Your task to perform on an android device: turn on data saver in the chrome app Image 0: 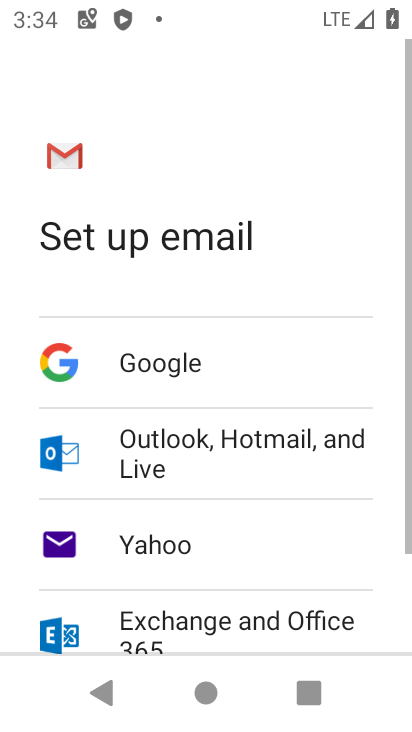
Step 0: press home button
Your task to perform on an android device: turn on data saver in the chrome app Image 1: 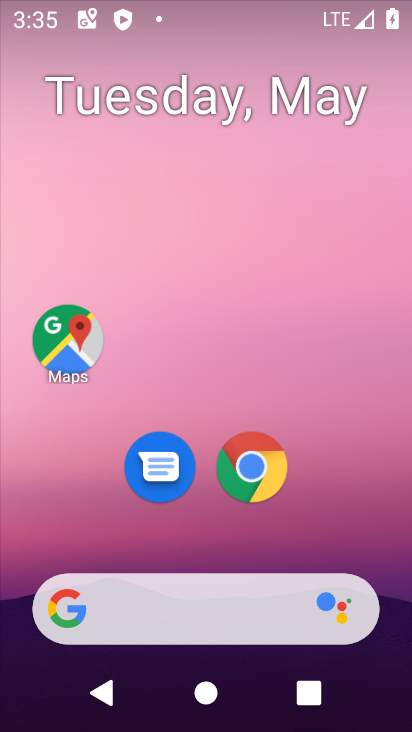
Step 1: click (253, 477)
Your task to perform on an android device: turn on data saver in the chrome app Image 2: 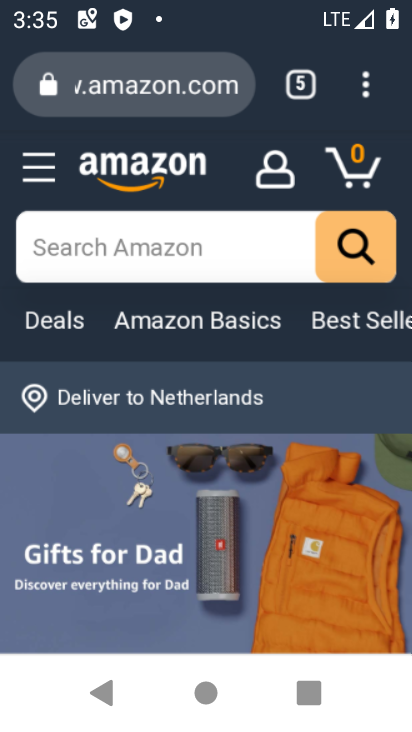
Step 2: drag from (364, 74) to (227, 510)
Your task to perform on an android device: turn on data saver in the chrome app Image 3: 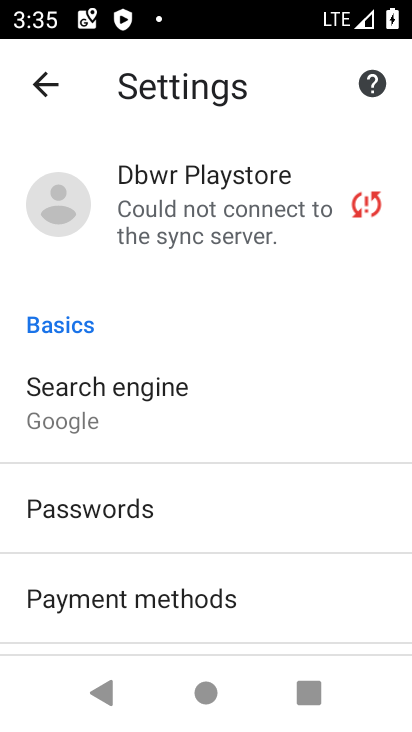
Step 3: drag from (345, 619) to (309, 55)
Your task to perform on an android device: turn on data saver in the chrome app Image 4: 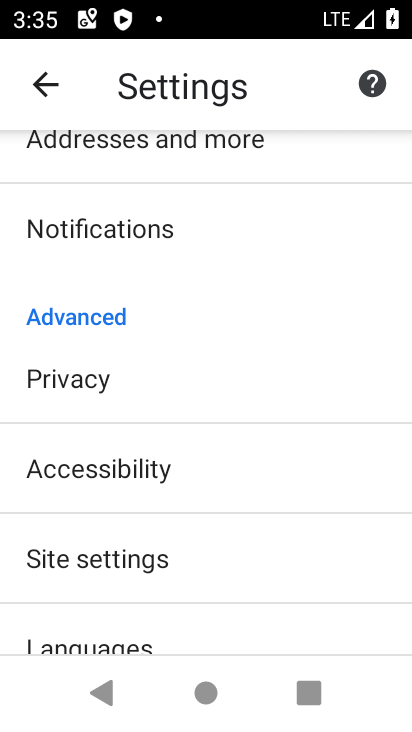
Step 4: drag from (298, 566) to (309, 126)
Your task to perform on an android device: turn on data saver in the chrome app Image 5: 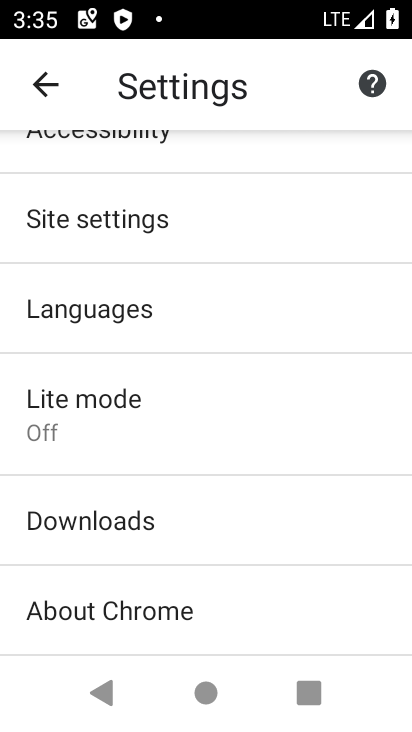
Step 5: click (99, 408)
Your task to perform on an android device: turn on data saver in the chrome app Image 6: 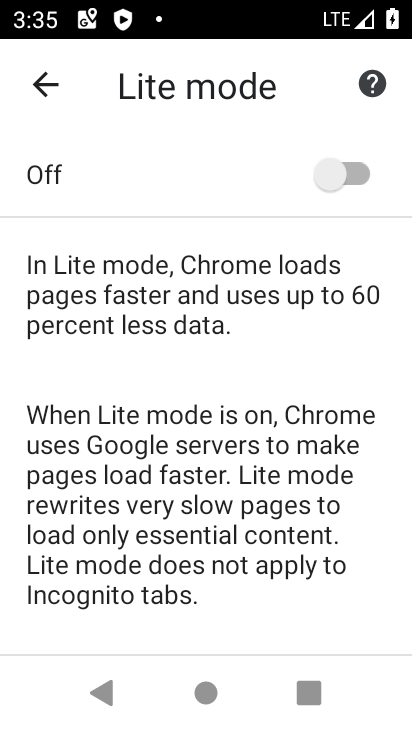
Step 6: click (347, 183)
Your task to perform on an android device: turn on data saver in the chrome app Image 7: 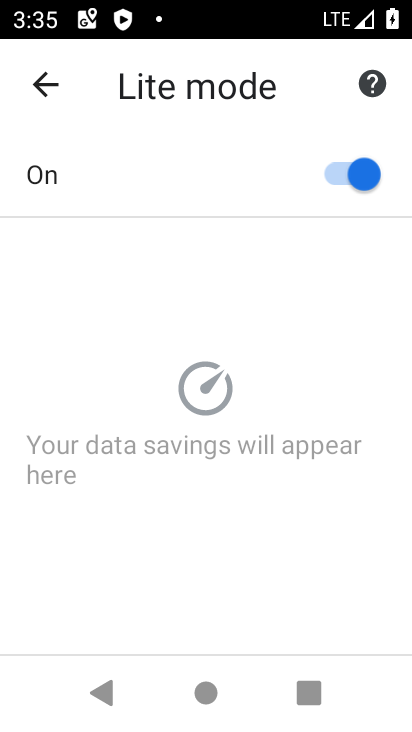
Step 7: task complete